Your task to perform on an android device: read, delete, or share a saved page in the chrome app Image 0: 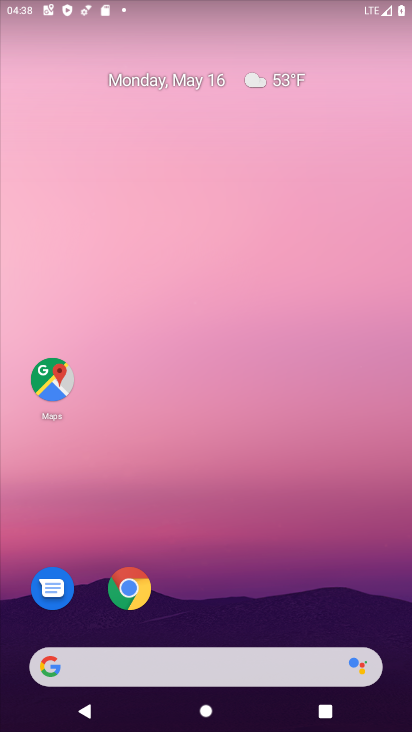
Step 0: drag from (219, 590) to (187, 0)
Your task to perform on an android device: read, delete, or share a saved page in the chrome app Image 1: 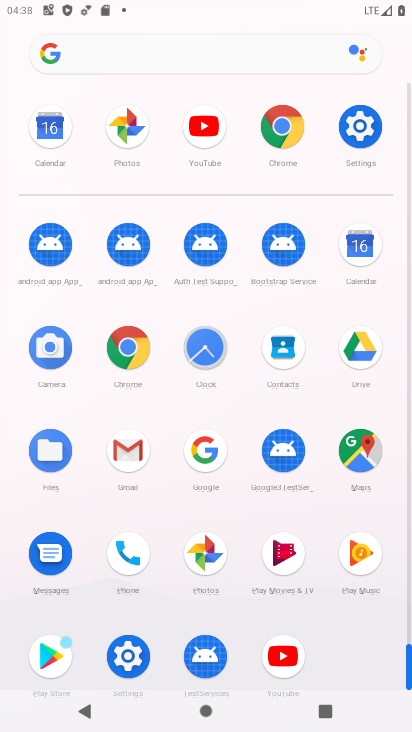
Step 1: drag from (1, 520) to (13, 220)
Your task to perform on an android device: read, delete, or share a saved page in the chrome app Image 2: 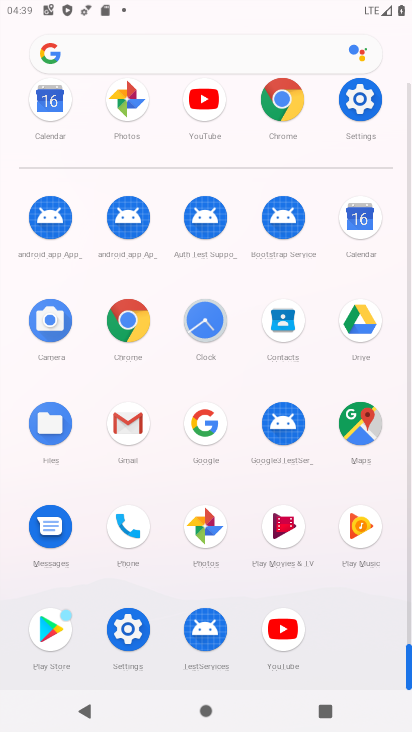
Step 2: click (277, 95)
Your task to perform on an android device: read, delete, or share a saved page in the chrome app Image 3: 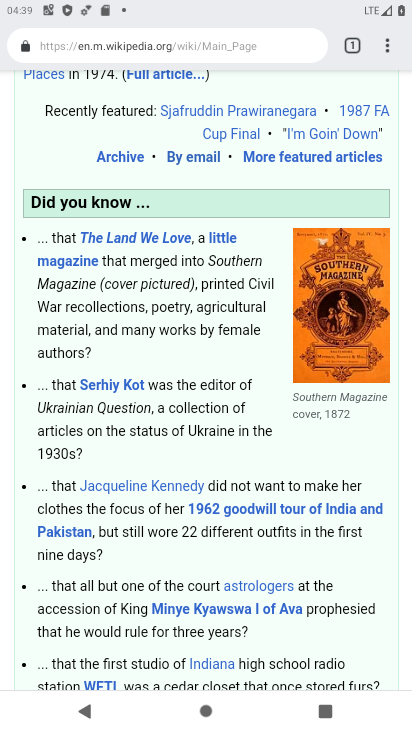
Step 3: task complete